Your task to perform on an android device: open device folders in google photos Image 0: 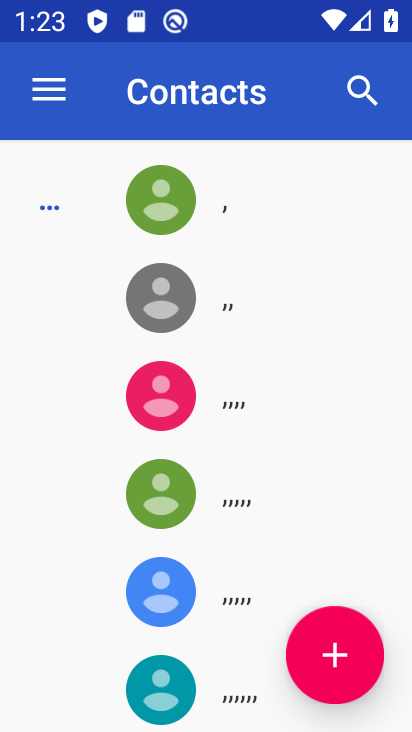
Step 0: press home button
Your task to perform on an android device: open device folders in google photos Image 1: 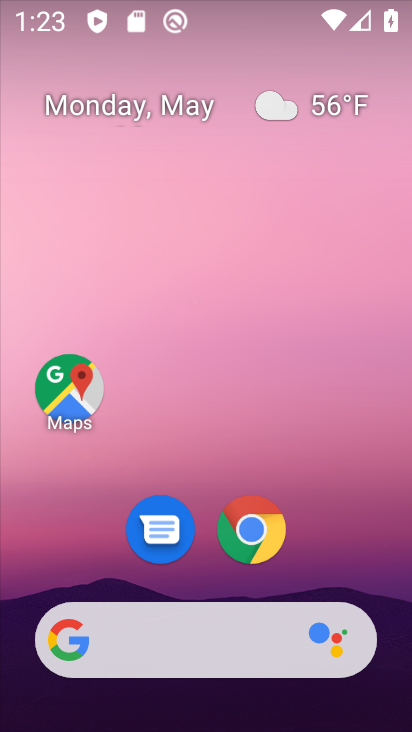
Step 1: drag from (207, 566) to (210, 78)
Your task to perform on an android device: open device folders in google photos Image 2: 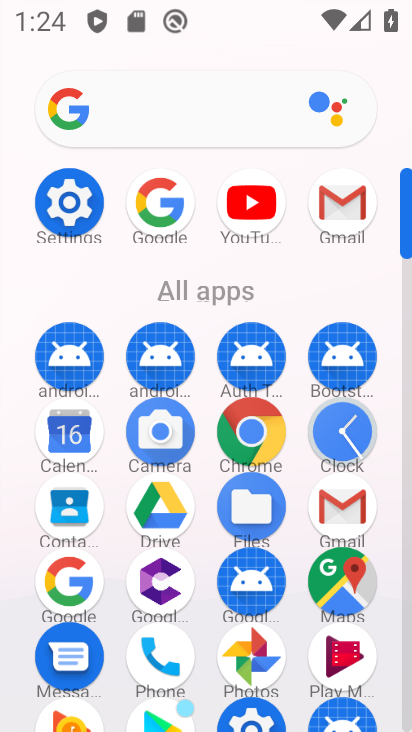
Step 2: click (260, 650)
Your task to perform on an android device: open device folders in google photos Image 3: 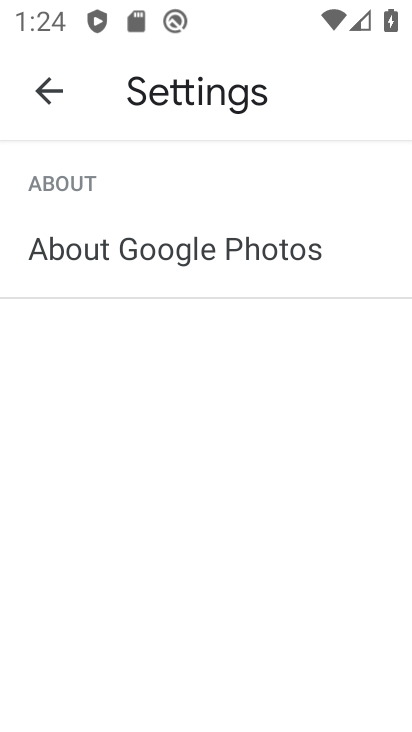
Step 3: click (39, 87)
Your task to perform on an android device: open device folders in google photos Image 4: 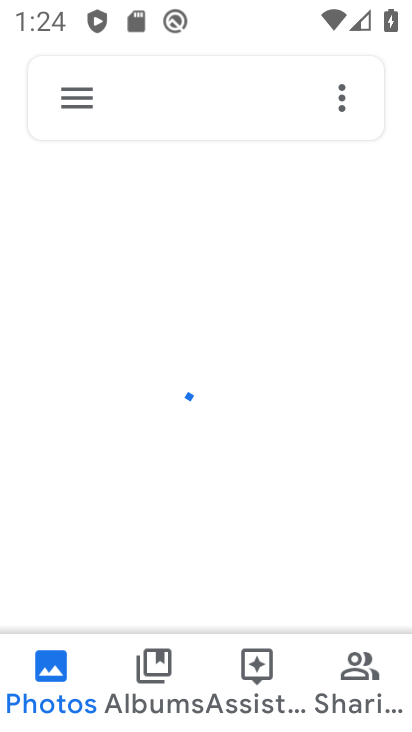
Step 4: click (67, 93)
Your task to perform on an android device: open device folders in google photos Image 5: 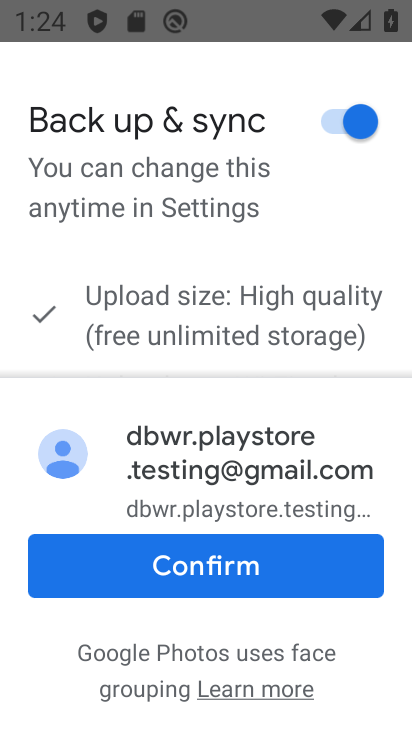
Step 5: click (149, 577)
Your task to perform on an android device: open device folders in google photos Image 6: 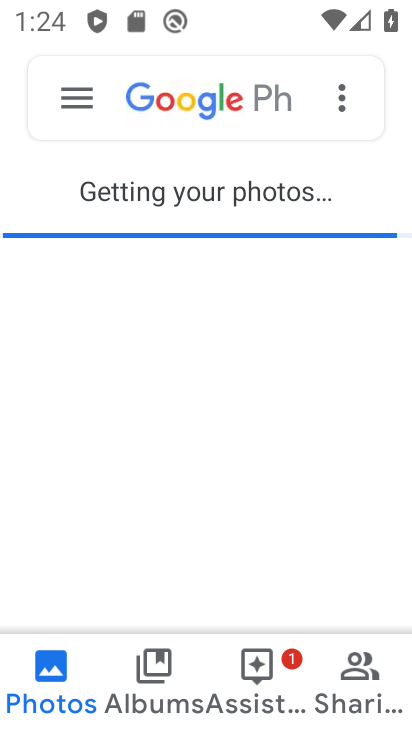
Step 6: click (81, 99)
Your task to perform on an android device: open device folders in google photos Image 7: 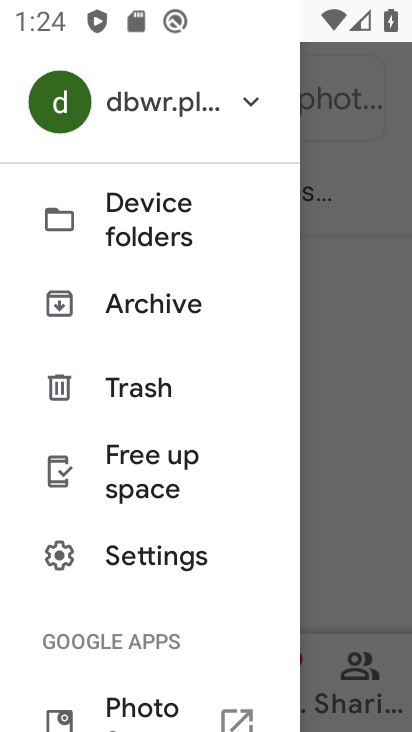
Step 7: click (103, 208)
Your task to perform on an android device: open device folders in google photos Image 8: 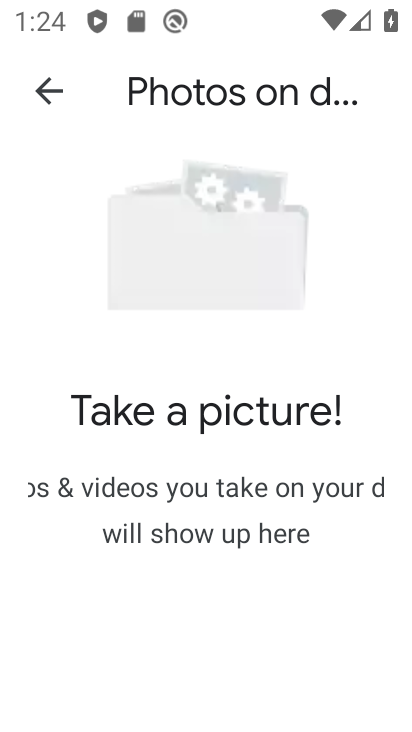
Step 8: task complete